Your task to perform on an android device: allow cookies in the chrome app Image 0: 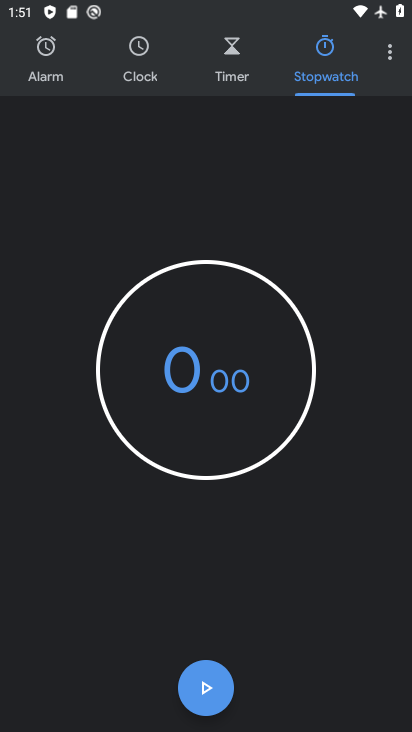
Step 0: press back button
Your task to perform on an android device: allow cookies in the chrome app Image 1: 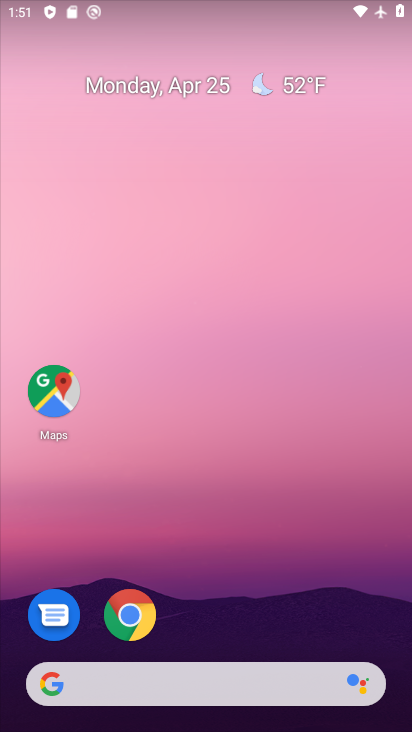
Step 1: click (131, 615)
Your task to perform on an android device: allow cookies in the chrome app Image 2: 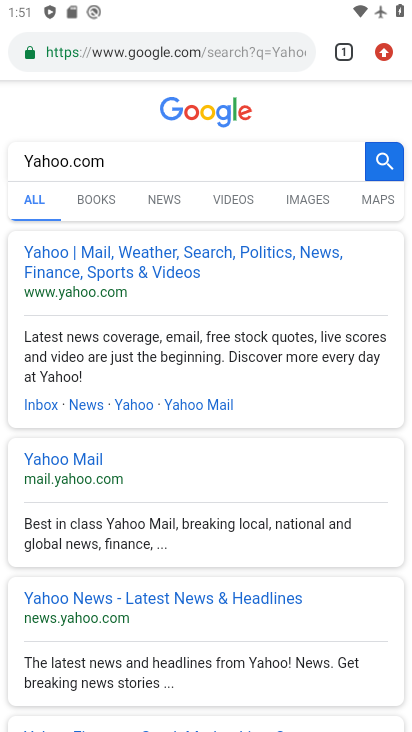
Step 2: click (383, 54)
Your task to perform on an android device: allow cookies in the chrome app Image 3: 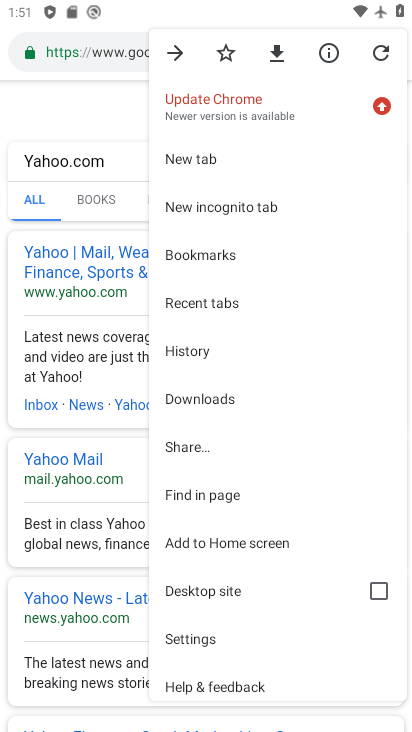
Step 3: drag from (248, 450) to (284, 352)
Your task to perform on an android device: allow cookies in the chrome app Image 4: 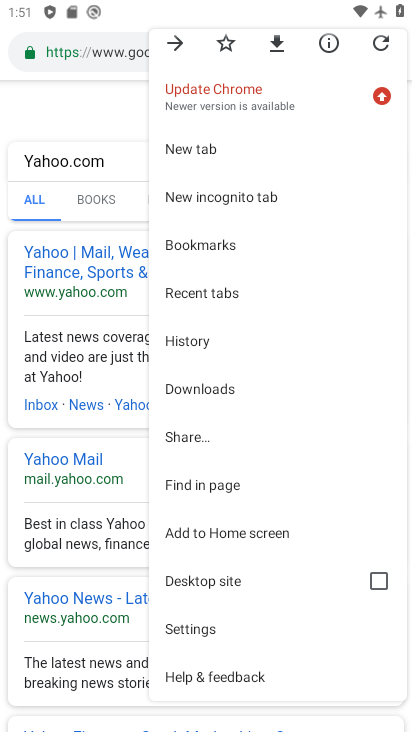
Step 4: drag from (271, 442) to (273, 352)
Your task to perform on an android device: allow cookies in the chrome app Image 5: 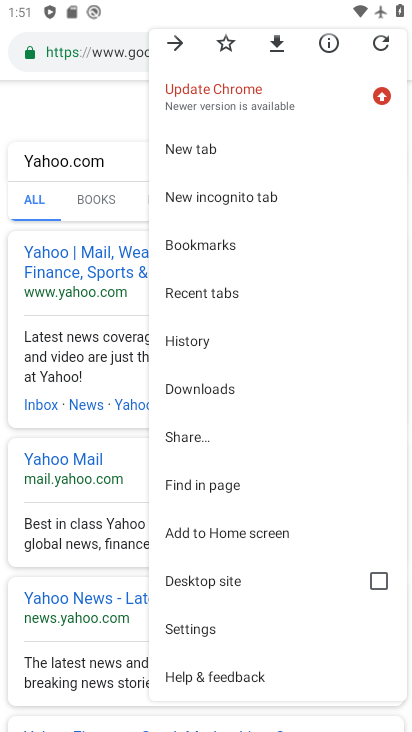
Step 5: drag from (251, 497) to (276, 372)
Your task to perform on an android device: allow cookies in the chrome app Image 6: 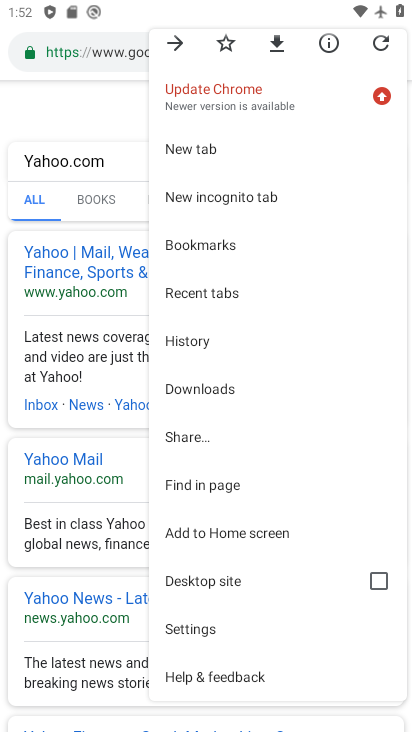
Step 6: click (203, 630)
Your task to perform on an android device: allow cookies in the chrome app Image 7: 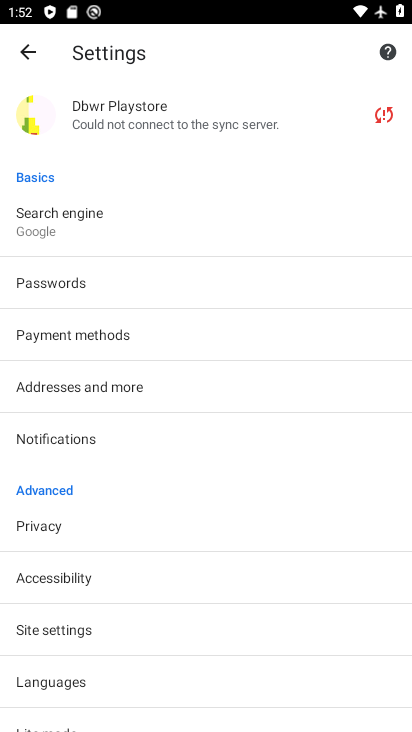
Step 7: drag from (150, 456) to (194, 345)
Your task to perform on an android device: allow cookies in the chrome app Image 8: 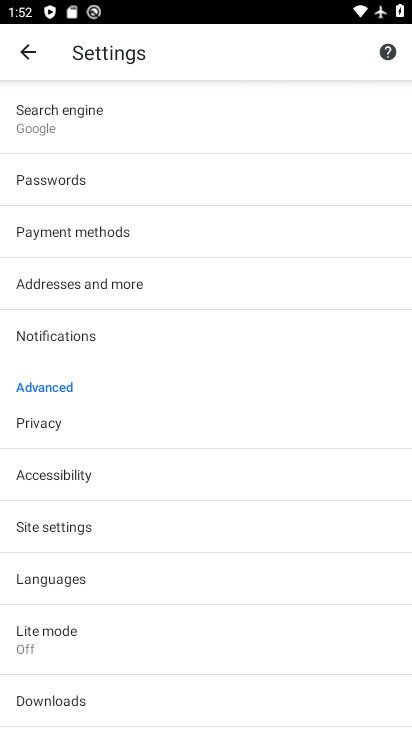
Step 8: drag from (132, 411) to (175, 334)
Your task to perform on an android device: allow cookies in the chrome app Image 9: 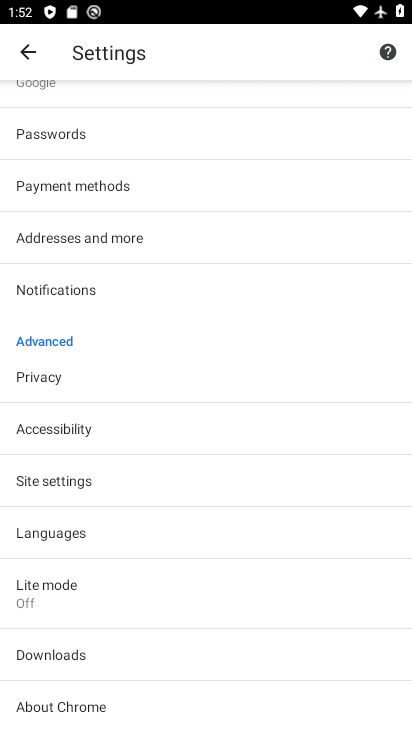
Step 9: click (61, 483)
Your task to perform on an android device: allow cookies in the chrome app Image 10: 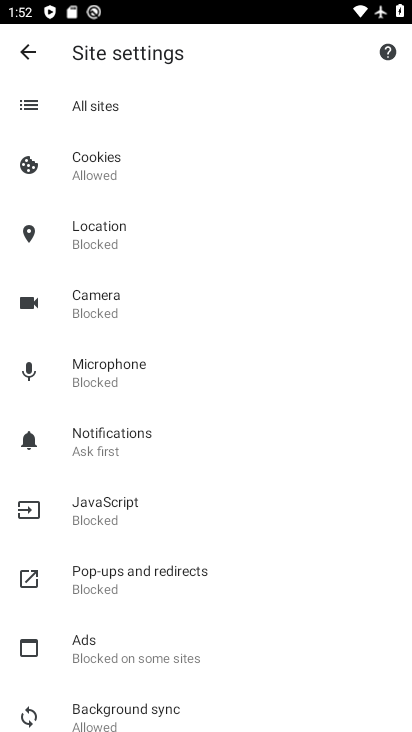
Step 10: click (107, 173)
Your task to perform on an android device: allow cookies in the chrome app Image 11: 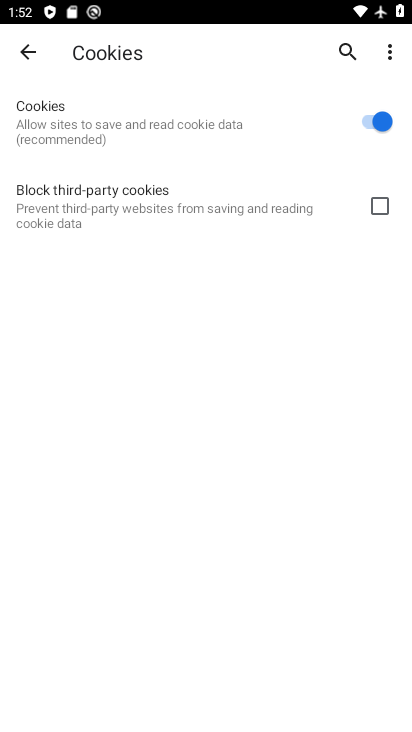
Step 11: click (368, 208)
Your task to perform on an android device: allow cookies in the chrome app Image 12: 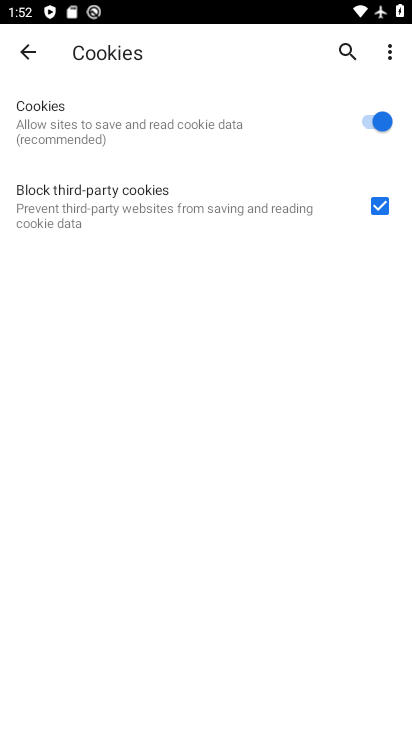
Step 12: task complete